Your task to perform on an android device: What's on my calendar today? Image 0: 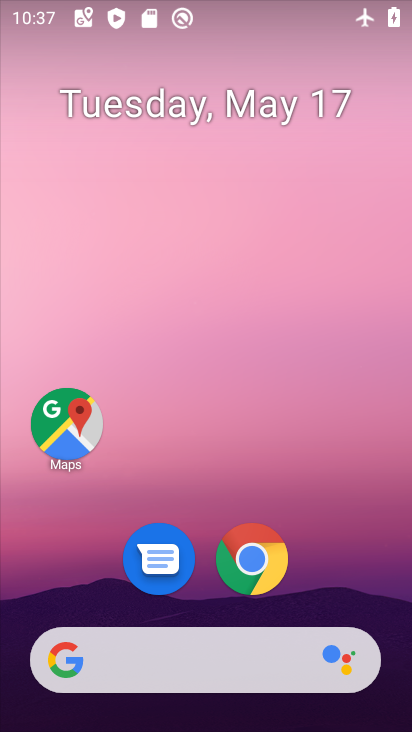
Step 0: click (192, 127)
Your task to perform on an android device: What's on my calendar today? Image 1: 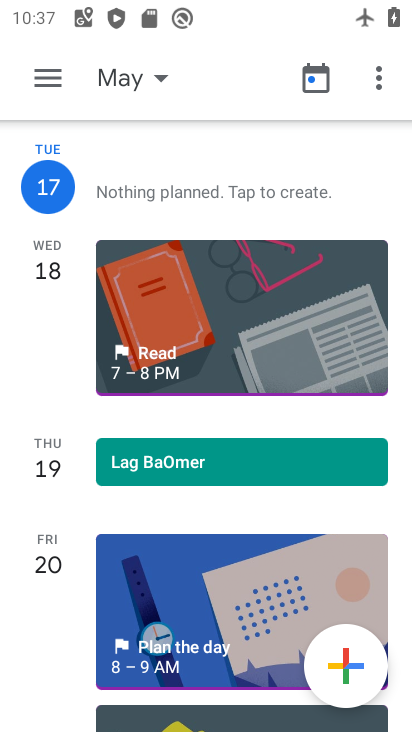
Step 1: press home button
Your task to perform on an android device: What's on my calendar today? Image 2: 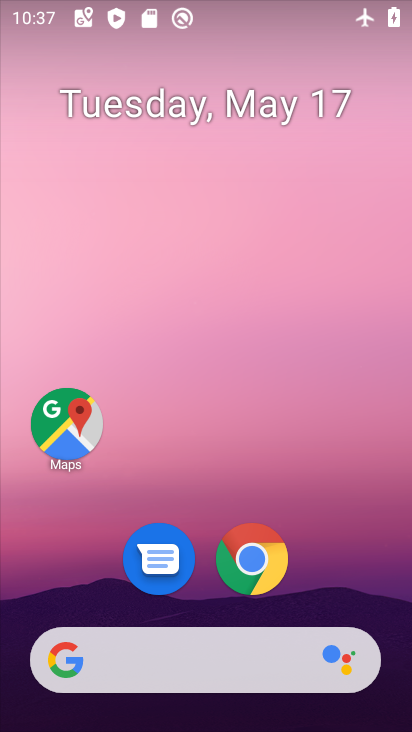
Step 2: drag from (199, 710) to (188, 120)
Your task to perform on an android device: What's on my calendar today? Image 3: 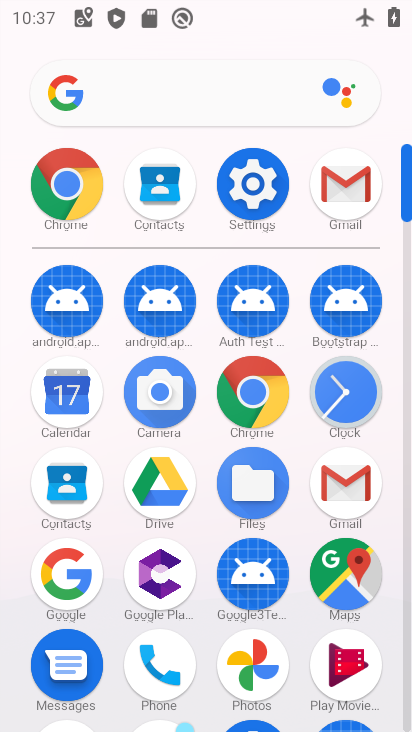
Step 3: click (71, 398)
Your task to perform on an android device: What's on my calendar today? Image 4: 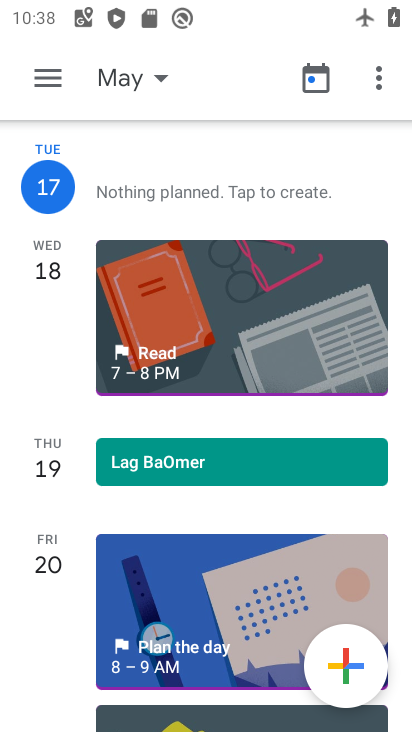
Step 4: task complete